Your task to perform on an android device: Open notification settings Image 0: 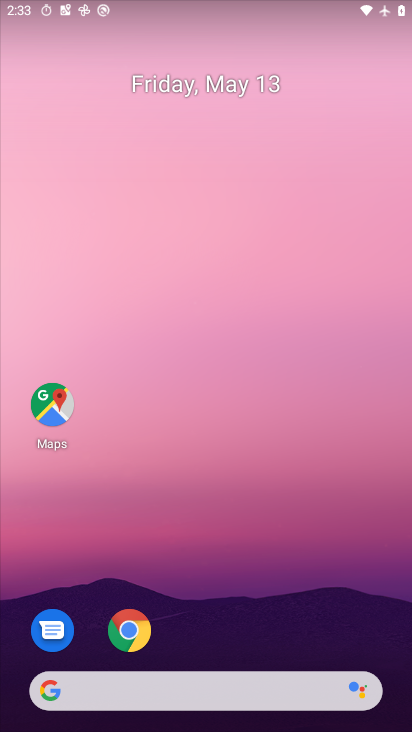
Step 0: drag from (195, 554) to (215, 339)
Your task to perform on an android device: Open notification settings Image 1: 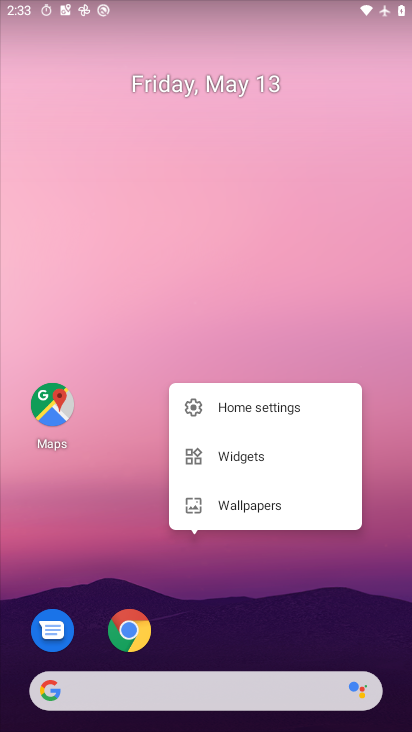
Step 1: drag from (215, 637) to (207, 277)
Your task to perform on an android device: Open notification settings Image 2: 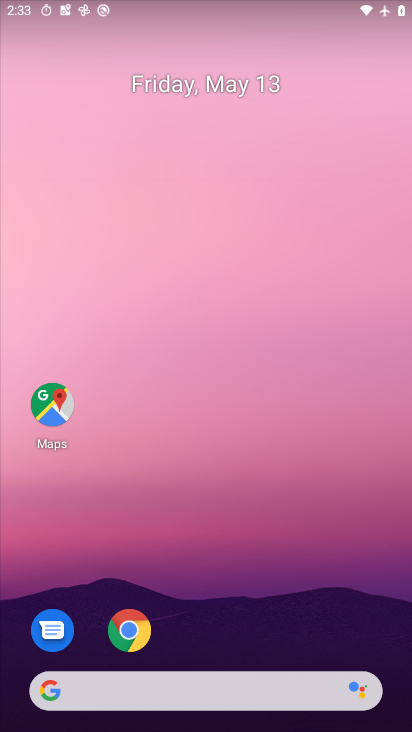
Step 2: drag from (207, 632) to (208, 257)
Your task to perform on an android device: Open notification settings Image 3: 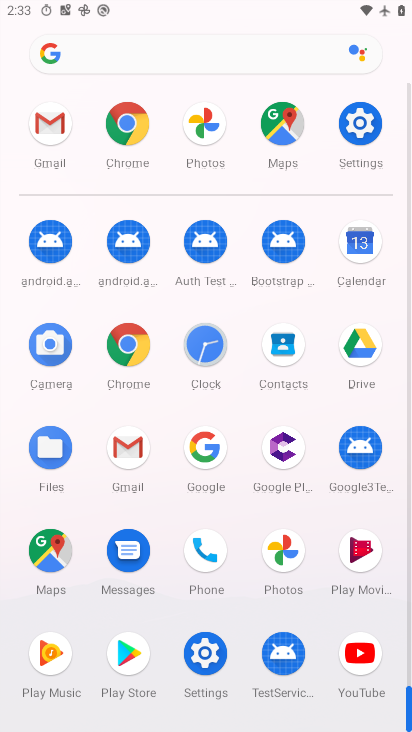
Step 3: click (205, 657)
Your task to perform on an android device: Open notification settings Image 4: 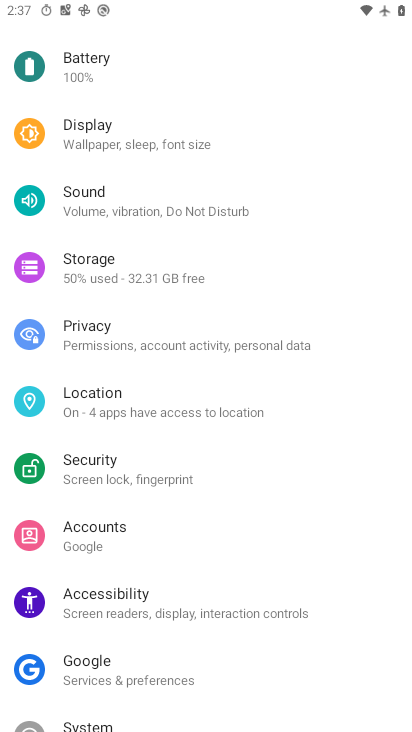
Step 4: drag from (202, 185) to (207, 631)
Your task to perform on an android device: Open notification settings Image 5: 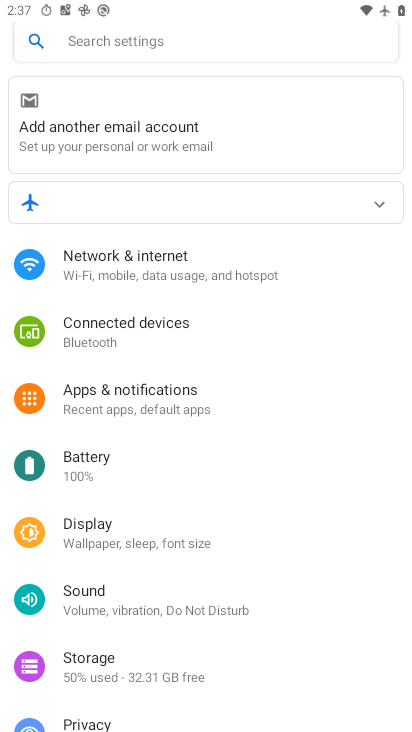
Step 5: drag from (272, 151) to (199, 469)
Your task to perform on an android device: Open notification settings Image 6: 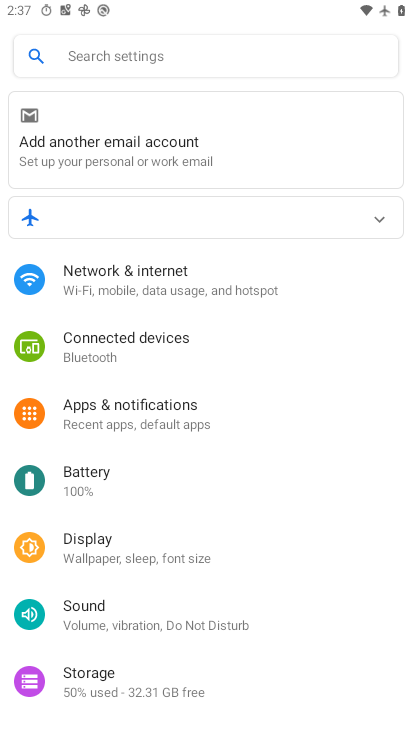
Step 6: click (175, 417)
Your task to perform on an android device: Open notification settings Image 7: 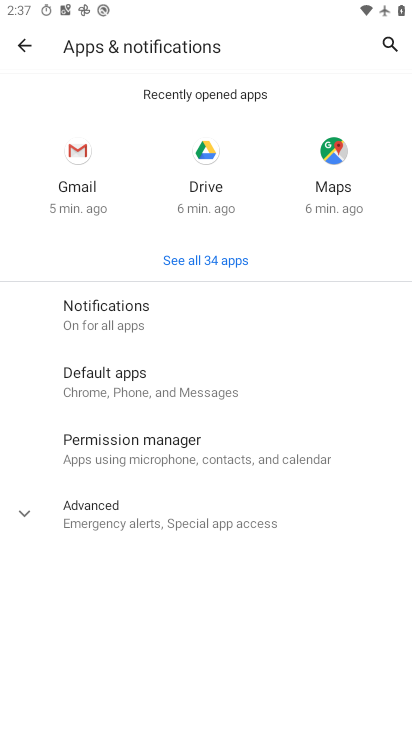
Step 7: task complete